Your task to perform on an android device: Go to Wikipedia Image 0: 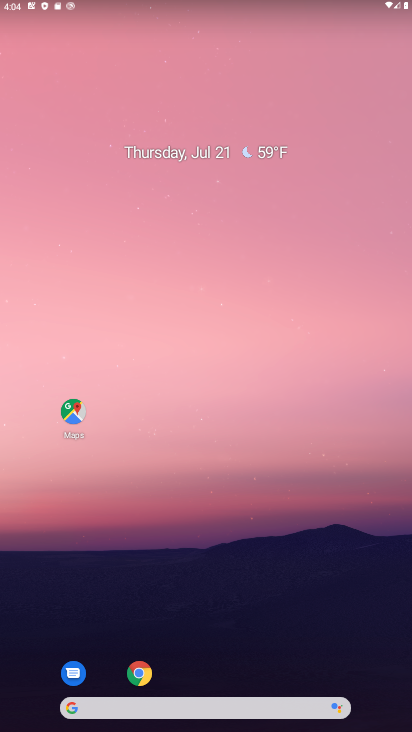
Step 0: click (141, 673)
Your task to perform on an android device: Go to Wikipedia Image 1: 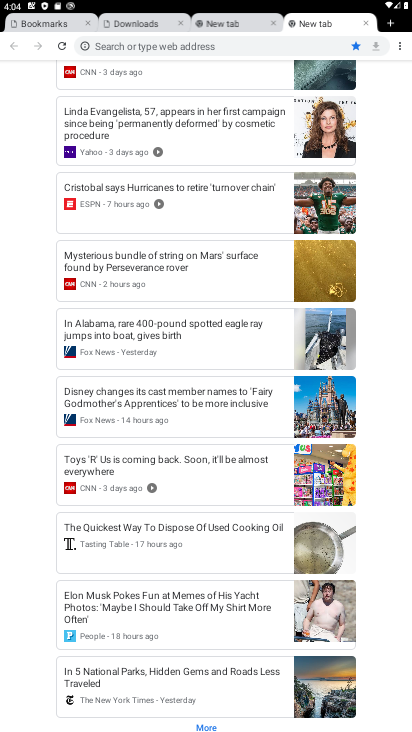
Step 1: drag from (224, 154) to (233, 369)
Your task to perform on an android device: Go to Wikipedia Image 2: 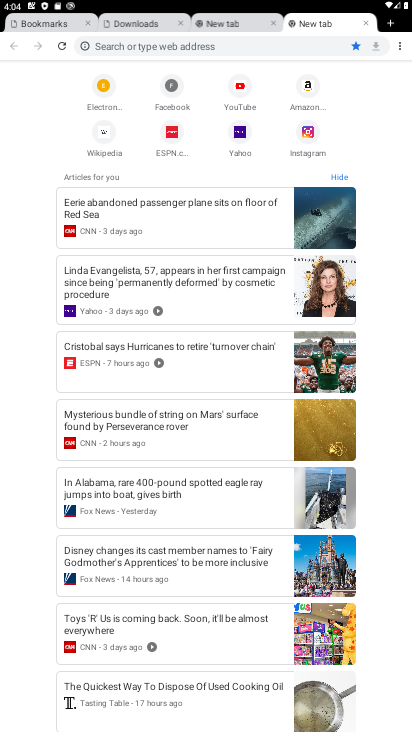
Step 2: drag from (210, 175) to (210, 430)
Your task to perform on an android device: Go to Wikipedia Image 3: 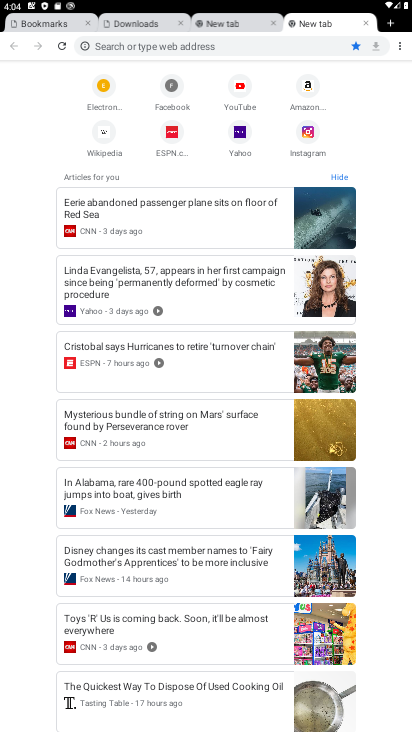
Step 3: click (176, 43)
Your task to perform on an android device: Go to Wikipedia Image 4: 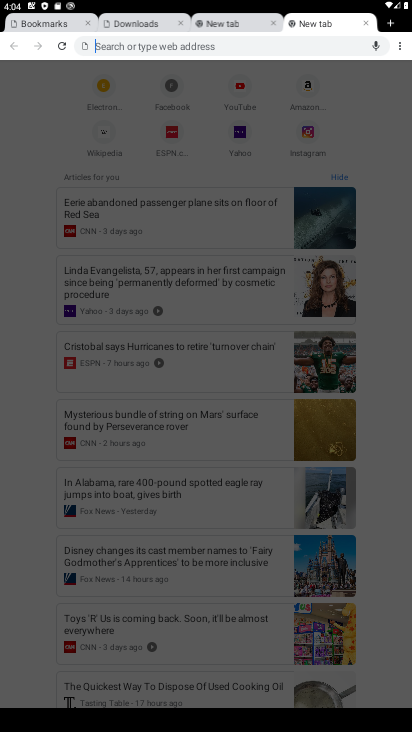
Step 4: type "wikipedia"
Your task to perform on an android device: Go to Wikipedia Image 5: 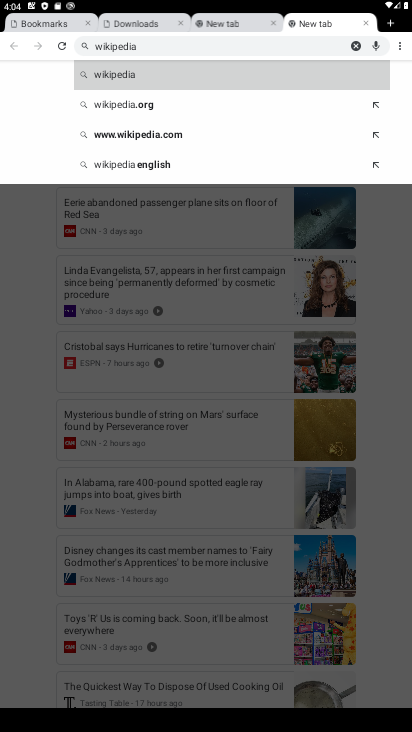
Step 5: click (112, 73)
Your task to perform on an android device: Go to Wikipedia Image 6: 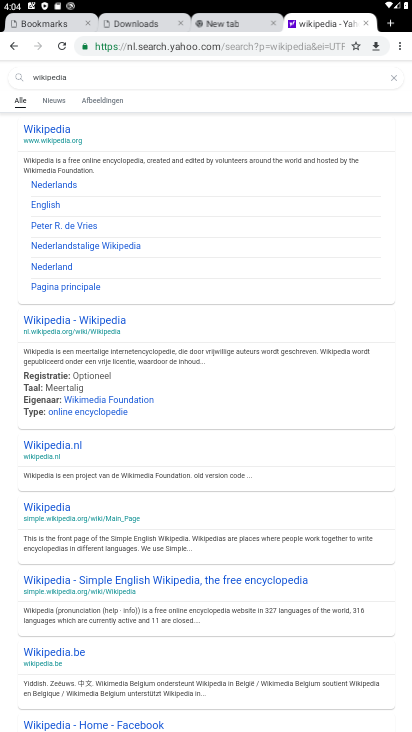
Step 6: click (47, 132)
Your task to perform on an android device: Go to Wikipedia Image 7: 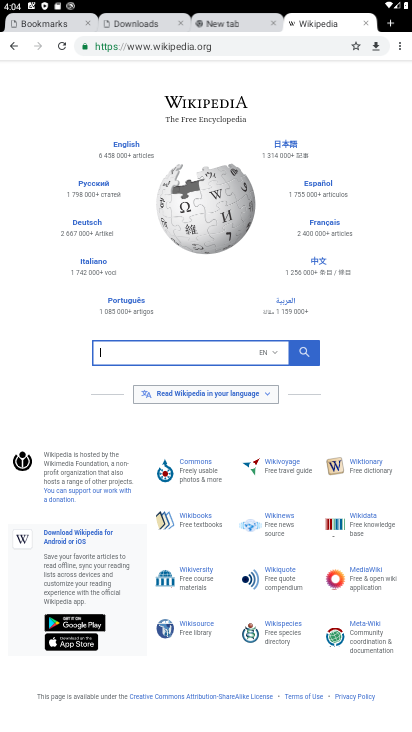
Step 7: task complete